Your task to perform on an android device: change the clock display to analog Image 0: 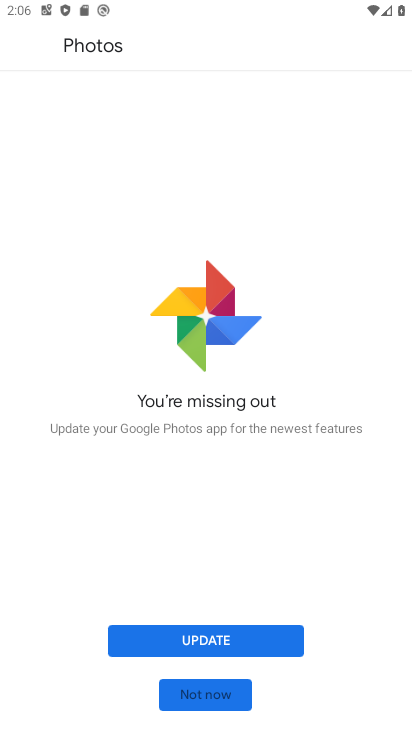
Step 0: press home button
Your task to perform on an android device: change the clock display to analog Image 1: 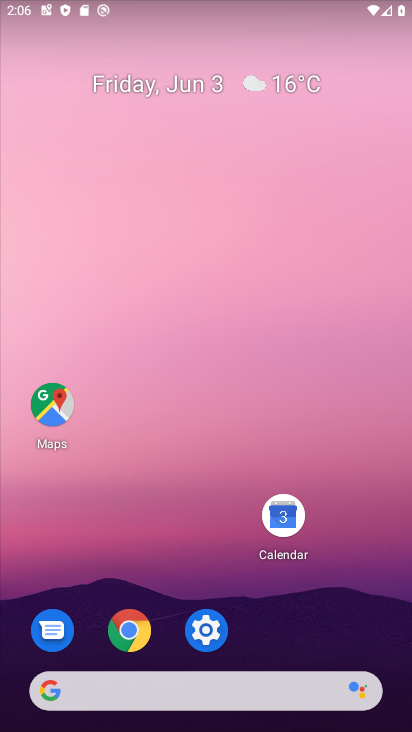
Step 1: drag from (240, 714) to (128, 148)
Your task to perform on an android device: change the clock display to analog Image 2: 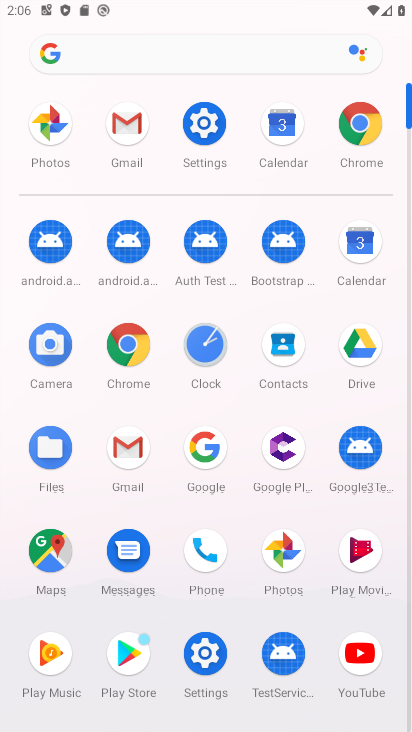
Step 2: click (201, 127)
Your task to perform on an android device: change the clock display to analog Image 3: 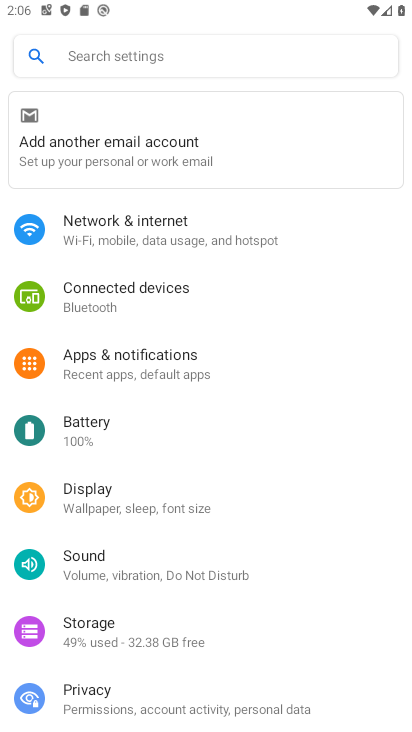
Step 3: press home button
Your task to perform on an android device: change the clock display to analog Image 4: 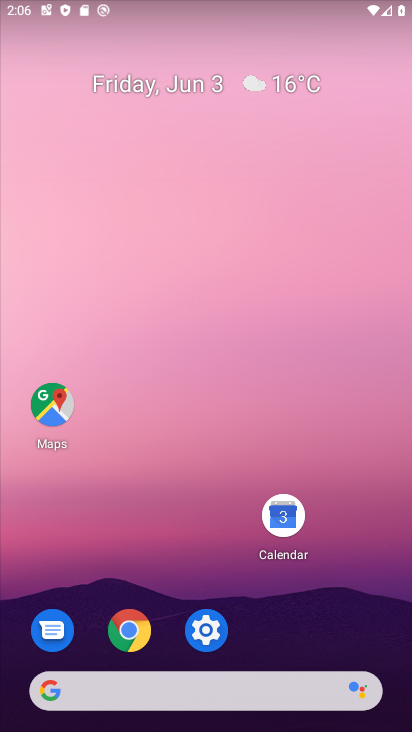
Step 4: drag from (264, 624) to (280, 114)
Your task to perform on an android device: change the clock display to analog Image 5: 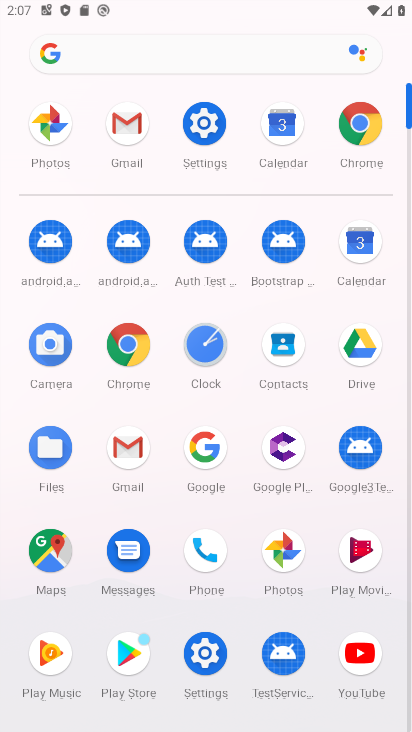
Step 5: click (187, 358)
Your task to perform on an android device: change the clock display to analog Image 6: 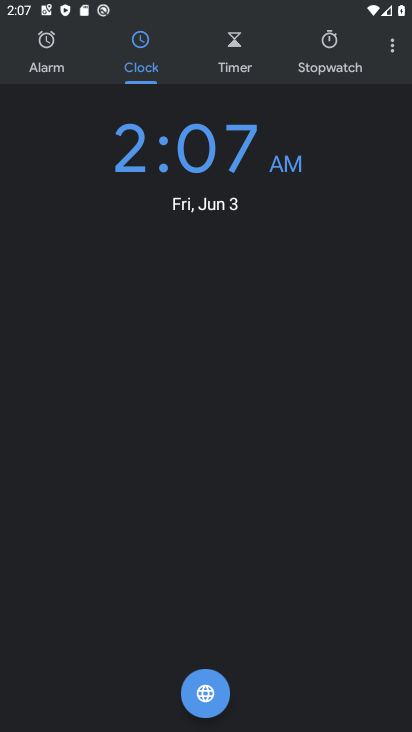
Step 6: click (385, 55)
Your task to perform on an android device: change the clock display to analog Image 7: 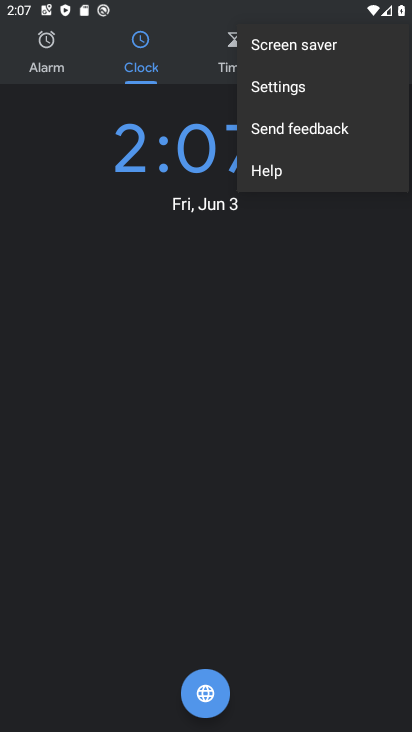
Step 7: click (254, 99)
Your task to perform on an android device: change the clock display to analog Image 8: 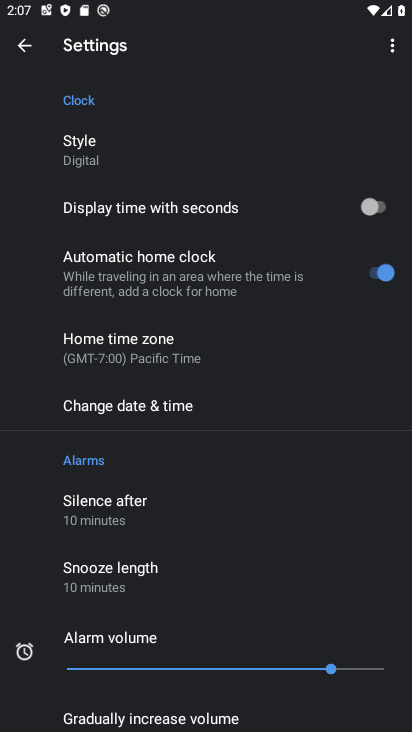
Step 8: click (81, 138)
Your task to perform on an android device: change the clock display to analog Image 9: 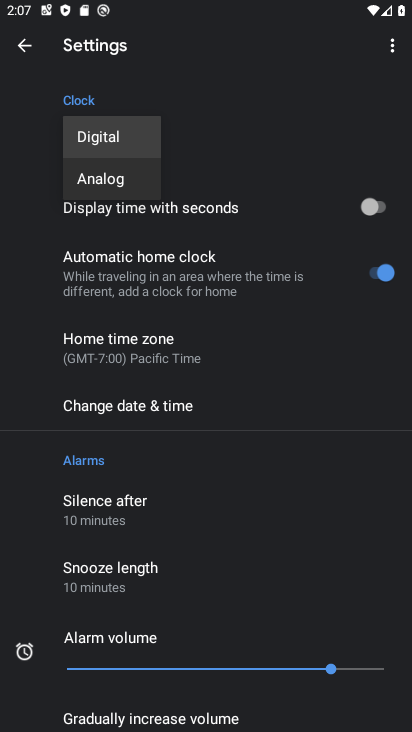
Step 9: click (94, 181)
Your task to perform on an android device: change the clock display to analog Image 10: 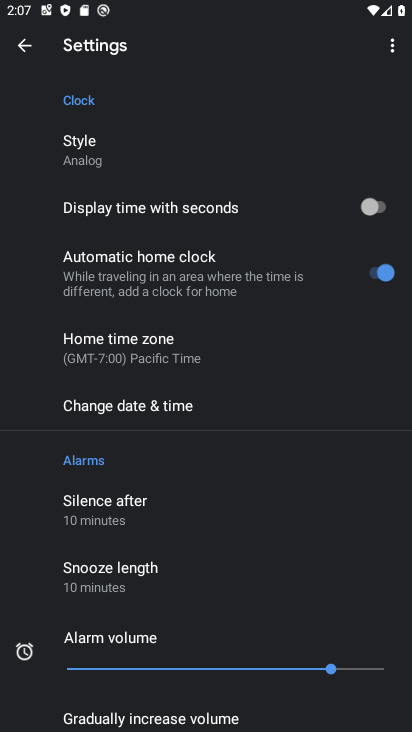
Step 10: task complete